Your task to perform on an android device: check battery use Image 0: 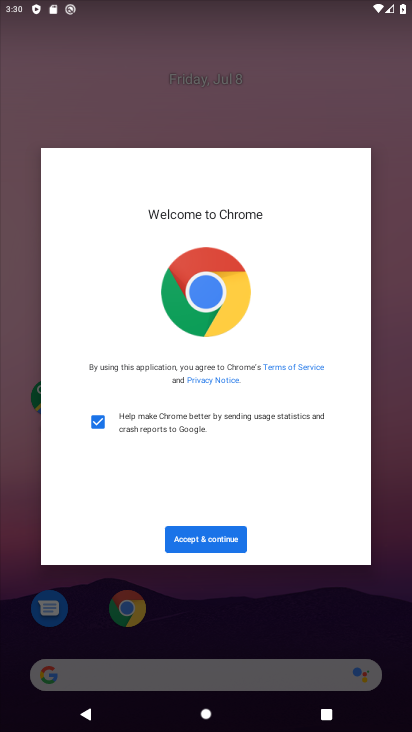
Step 0: press home button
Your task to perform on an android device: check battery use Image 1: 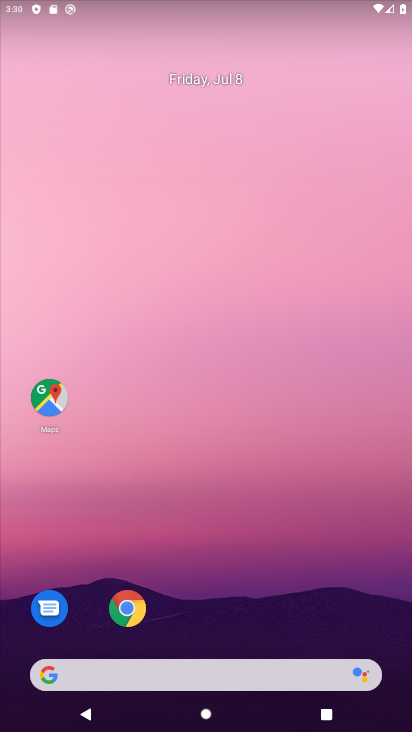
Step 1: drag from (201, 600) to (234, 90)
Your task to perform on an android device: check battery use Image 2: 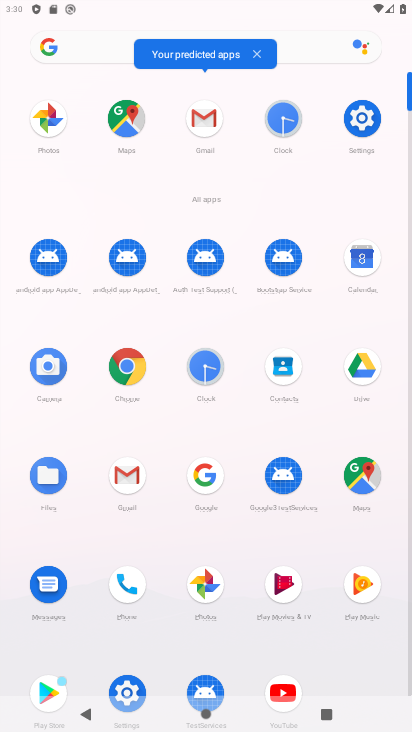
Step 2: click (128, 674)
Your task to perform on an android device: check battery use Image 3: 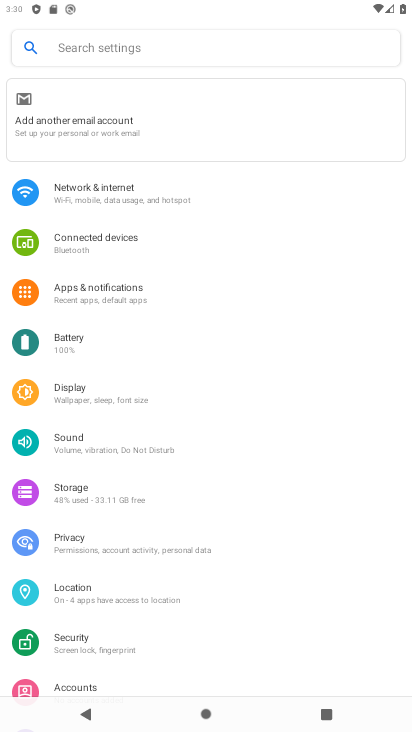
Step 3: click (74, 339)
Your task to perform on an android device: check battery use Image 4: 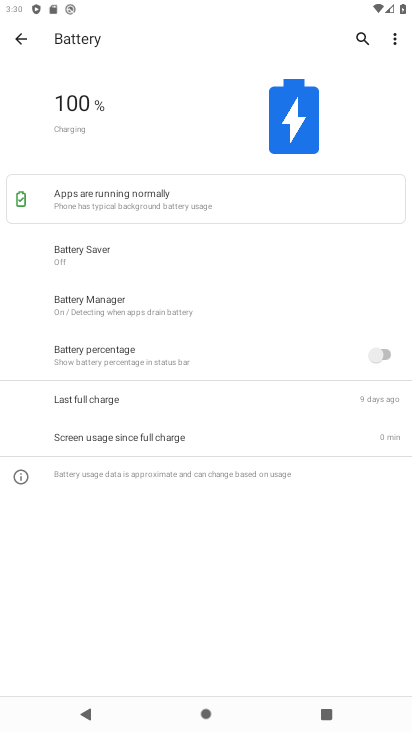
Step 4: task complete